Your task to perform on an android device: Go to Maps Image 0: 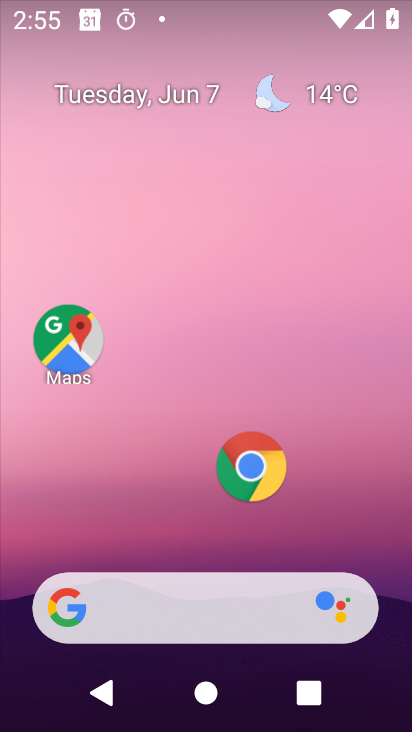
Step 0: click (66, 352)
Your task to perform on an android device: Go to Maps Image 1: 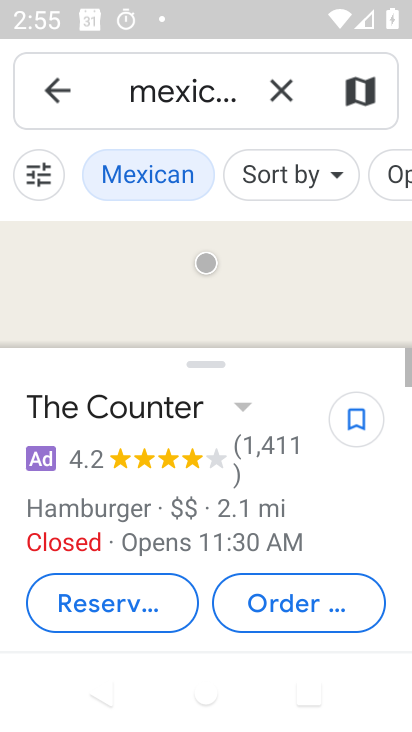
Step 1: click (285, 97)
Your task to perform on an android device: Go to Maps Image 2: 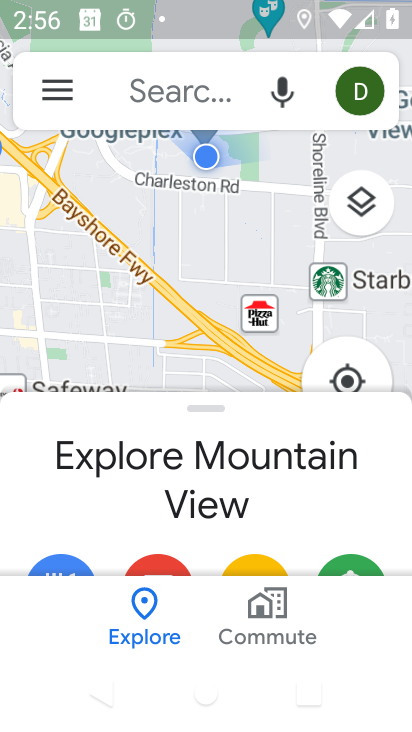
Step 2: task complete